Your task to perform on an android device: Toggle the flashlight Image 0: 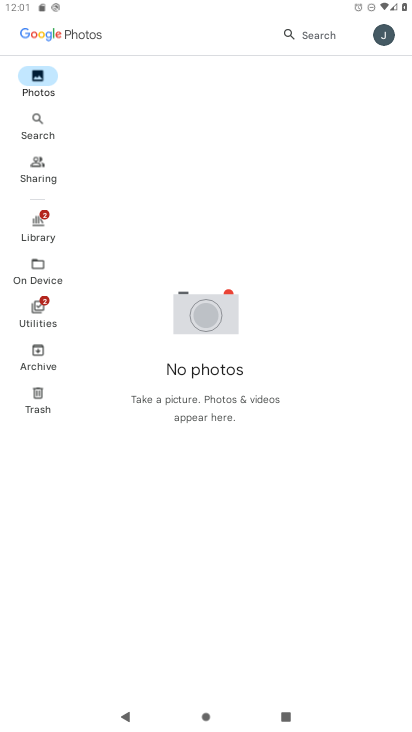
Step 0: press home button
Your task to perform on an android device: Toggle the flashlight Image 1: 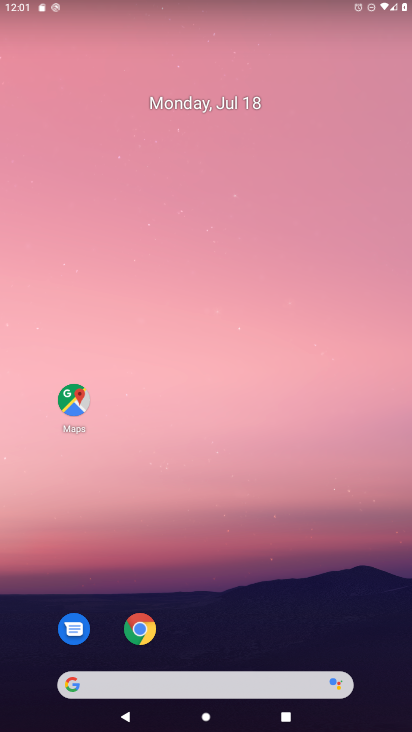
Step 1: drag from (211, 684) to (227, 134)
Your task to perform on an android device: Toggle the flashlight Image 2: 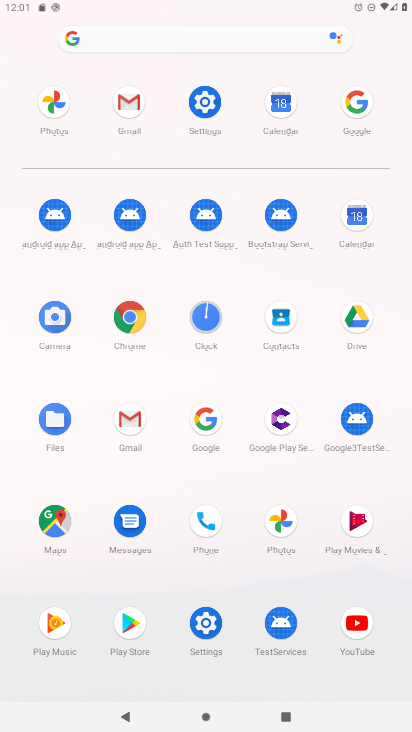
Step 2: click (203, 101)
Your task to perform on an android device: Toggle the flashlight Image 3: 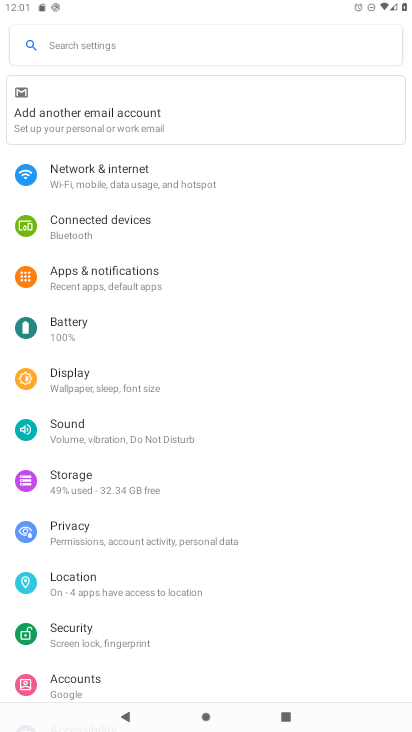
Step 3: drag from (203, 642) to (276, 273)
Your task to perform on an android device: Toggle the flashlight Image 4: 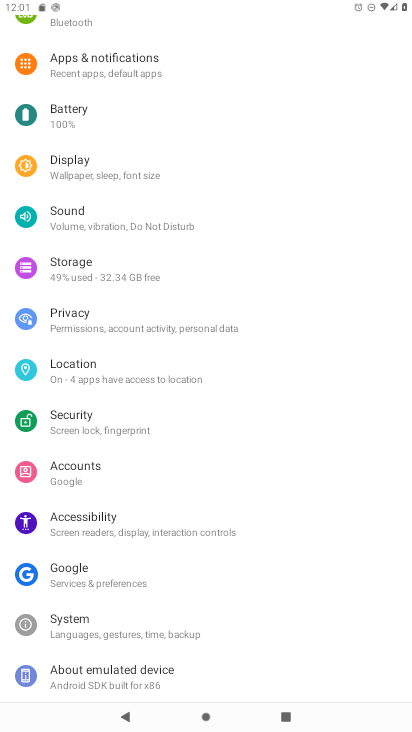
Step 4: click (137, 637)
Your task to perform on an android device: Toggle the flashlight Image 5: 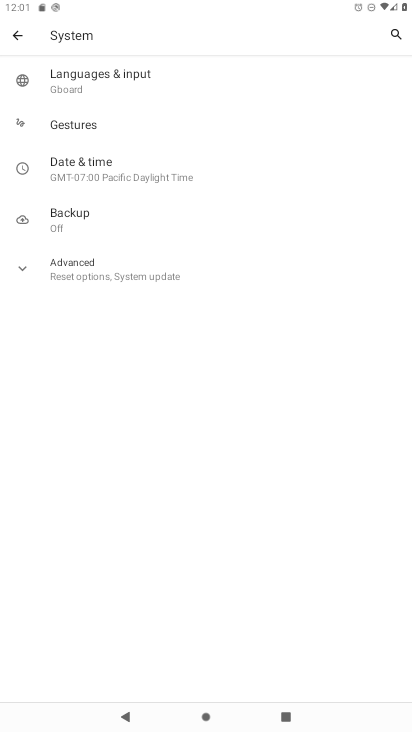
Step 5: click (22, 265)
Your task to perform on an android device: Toggle the flashlight Image 6: 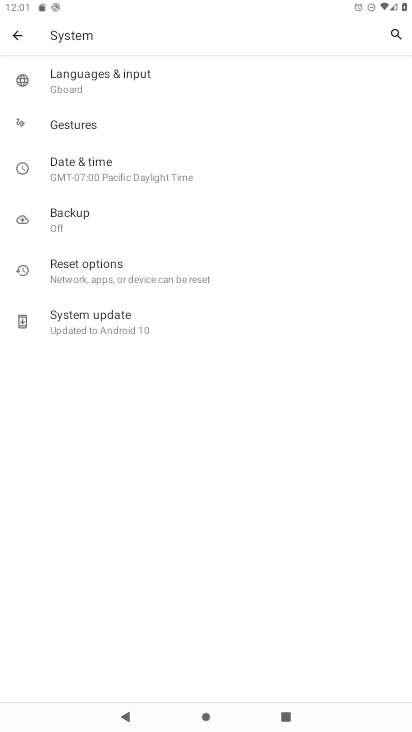
Step 6: press back button
Your task to perform on an android device: Toggle the flashlight Image 7: 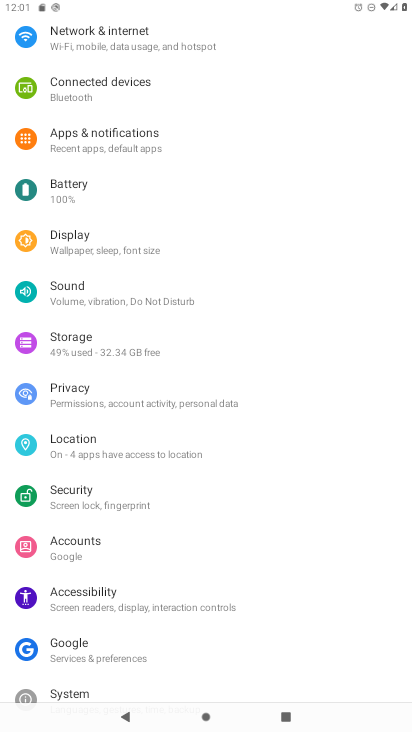
Step 7: click (150, 611)
Your task to perform on an android device: Toggle the flashlight Image 8: 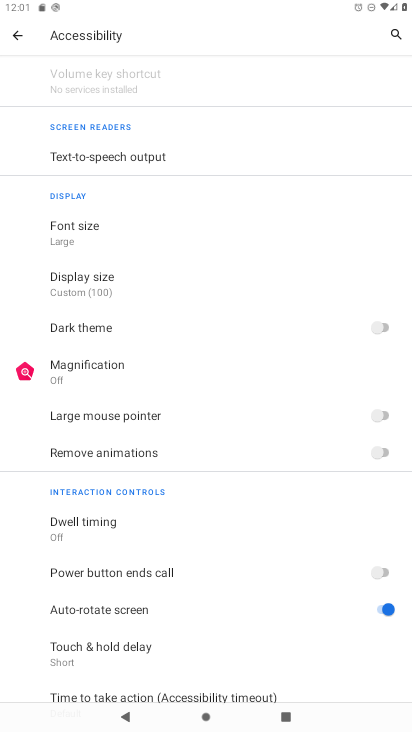
Step 8: drag from (103, 393) to (120, 313)
Your task to perform on an android device: Toggle the flashlight Image 9: 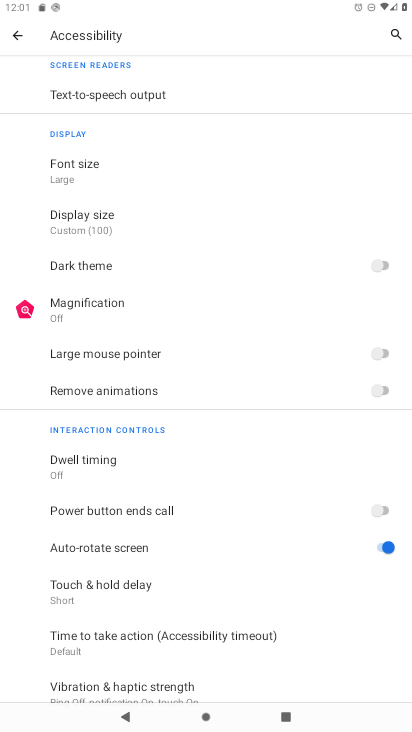
Step 9: drag from (108, 529) to (153, 433)
Your task to perform on an android device: Toggle the flashlight Image 10: 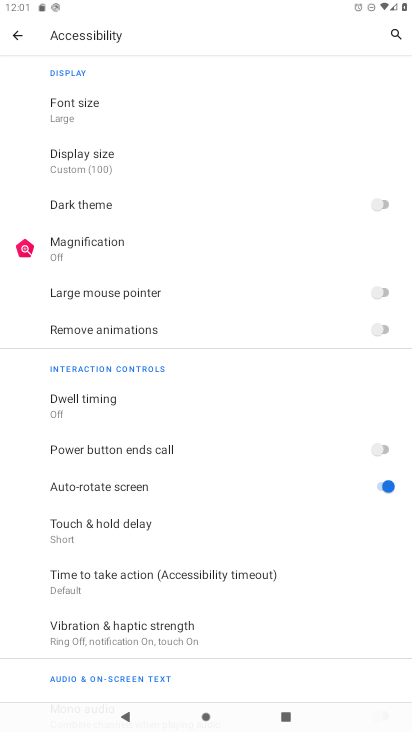
Step 10: drag from (140, 549) to (208, 432)
Your task to perform on an android device: Toggle the flashlight Image 11: 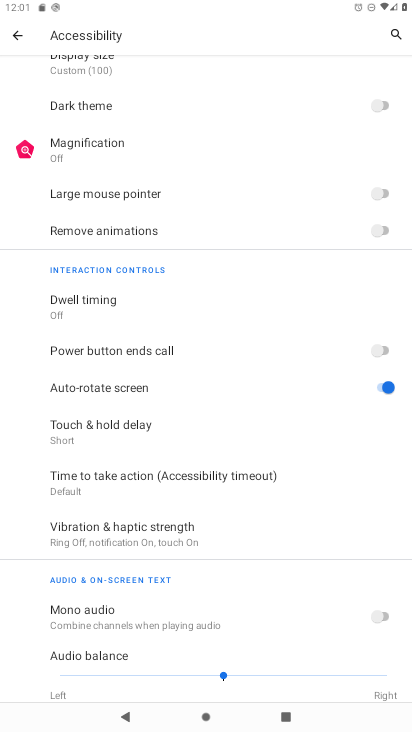
Step 11: drag from (191, 527) to (291, 381)
Your task to perform on an android device: Toggle the flashlight Image 12: 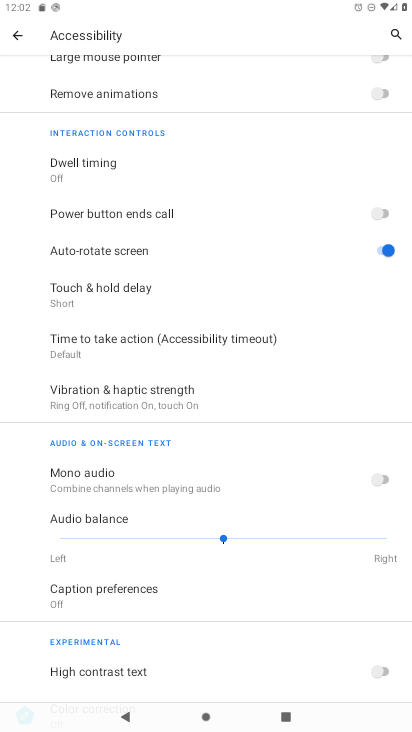
Step 12: drag from (147, 556) to (225, 429)
Your task to perform on an android device: Toggle the flashlight Image 13: 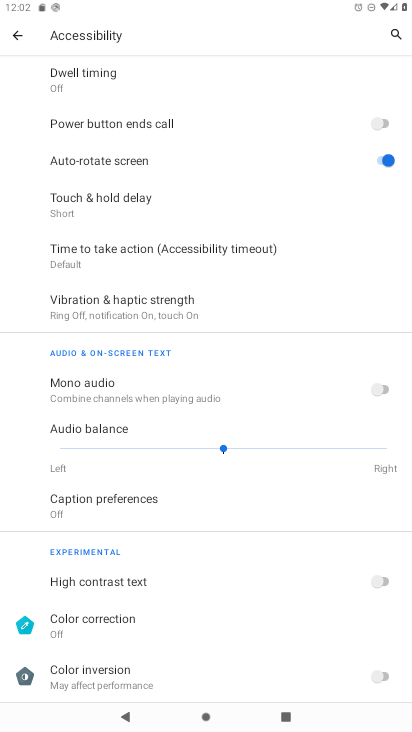
Step 13: drag from (133, 661) to (206, 513)
Your task to perform on an android device: Toggle the flashlight Image 14: 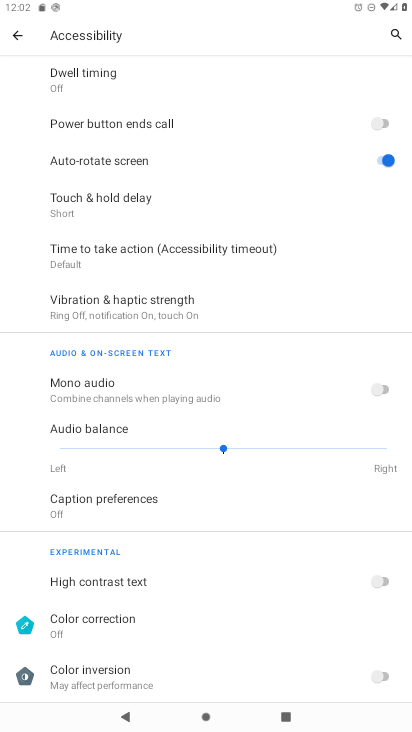
Step 14: press back button
Your task to perform on an android device: Toggle the flashlight Image 15: 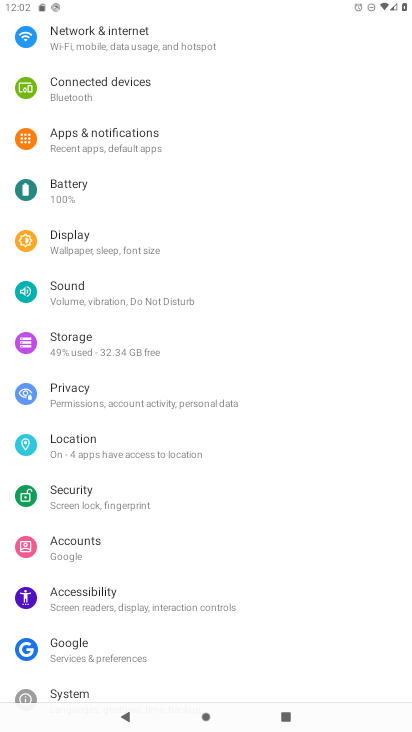
Step 15: click (128, 394)
Your task to perform on an android device: Toggle the flashlight Image 16: 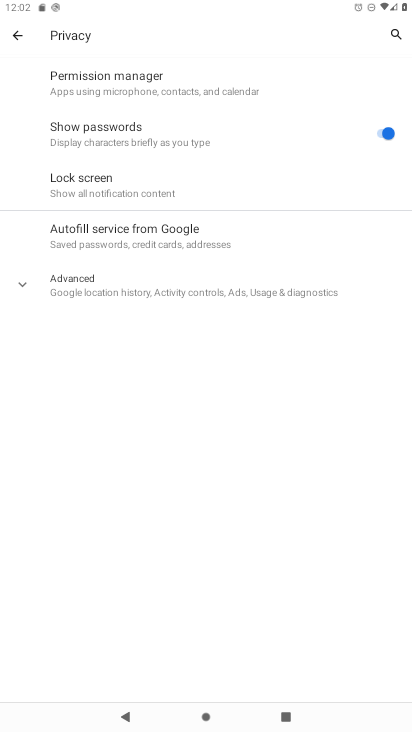
Step 16: click (29, 279)
Your task to perform on an android device: Toggle the flashlight Image 17: 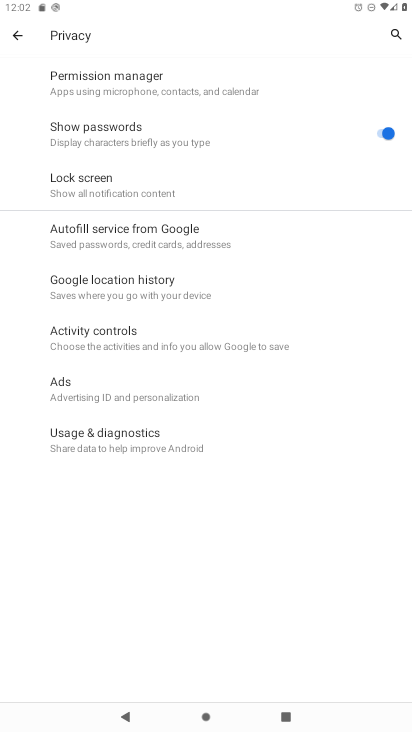
Step 17: press back button
Your task to perform on an android device: Toggle the flashlight Image 18: 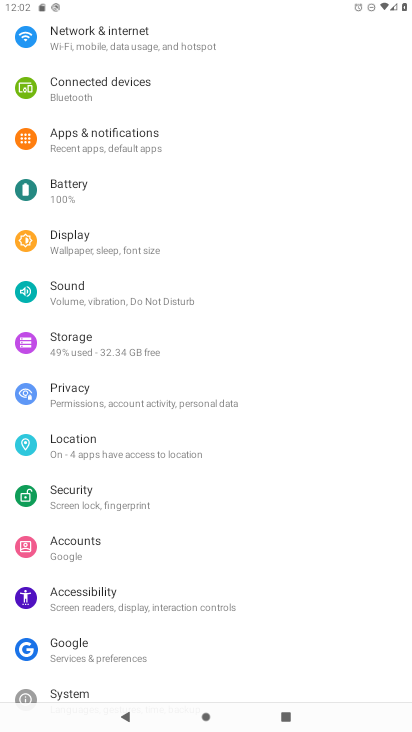
Step 18: click (114, 340)
Your task to perform on an android device: Toggle the flashlight Image 19: 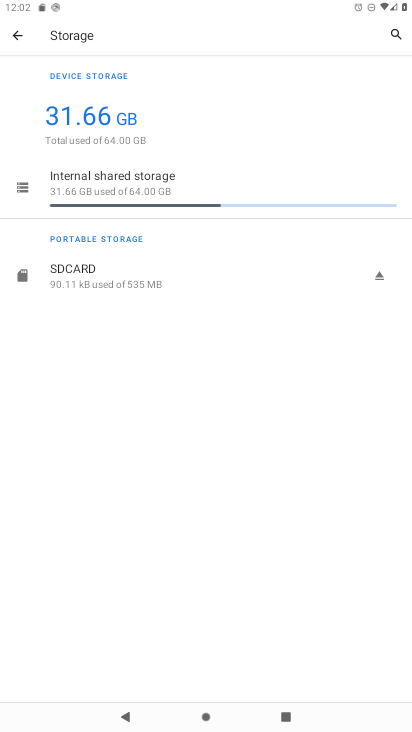
Step 19: press back button
Your task to perform on an android device: Toggle the flashlight Image 20: 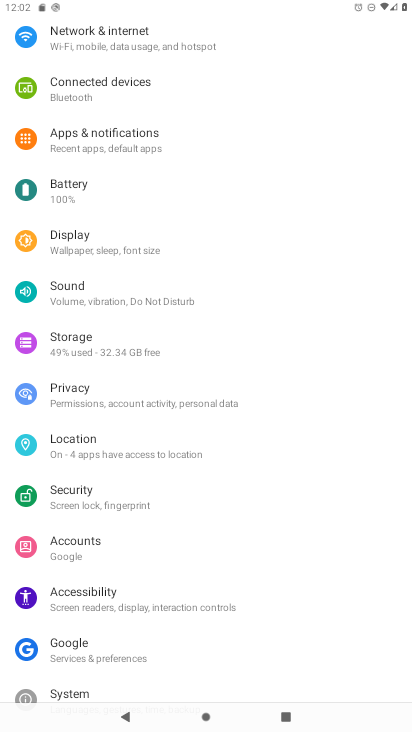
Step 20: click (110, 299)
Your task to perform on an android device: Toggle the flashlight Image 21: 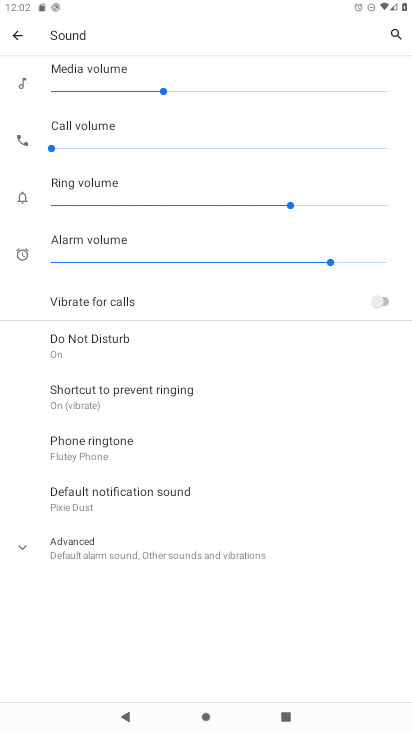
Step 21: click (99, 549)
Your task to perform on an android device: Toggle the flashlight Image 22: 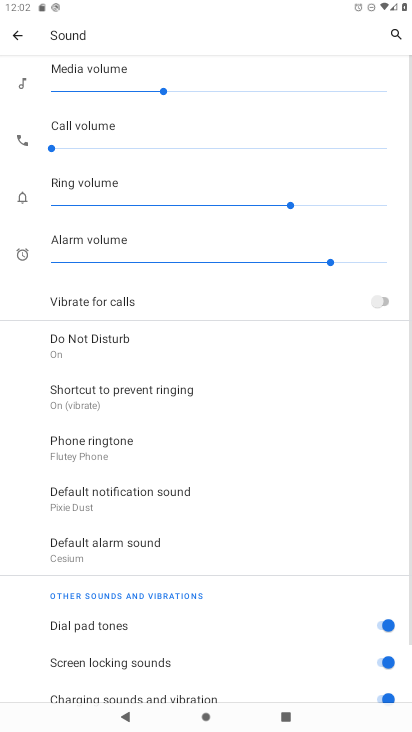
Step 22: drag from (117, 621) to (144, 520)
Your task to perform on an android device: Toggle the flashlight Image 23: 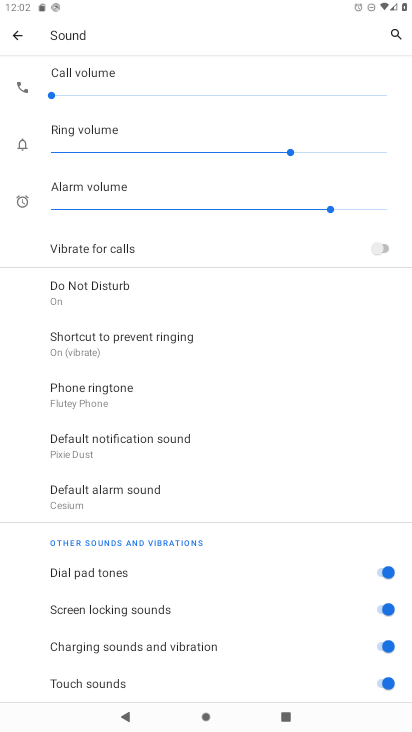
Step 23: drag from (128, 581) to (192, 469)
Your task to perform on an android device: Toggle the flashlight Image 24: 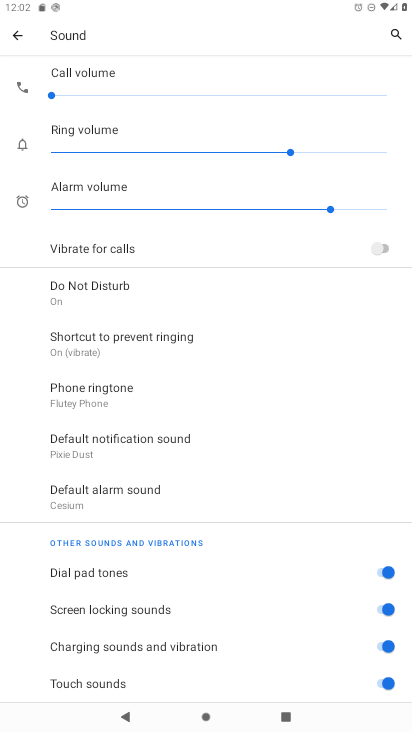
Step 24: drag from (218, 616) to (305, 383)
Your task to perform on an android device: Toggle the flashlight Image 25: 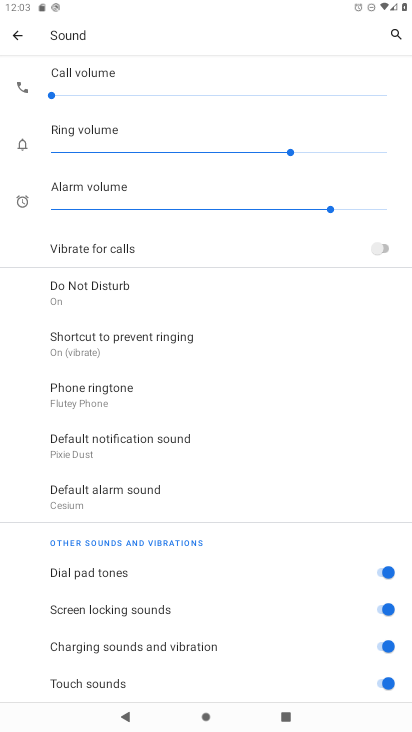
Step 25: drag from (160, 542) to (257, 302)
Your task to perform on an android device: Toggle the flashlight Image 26: 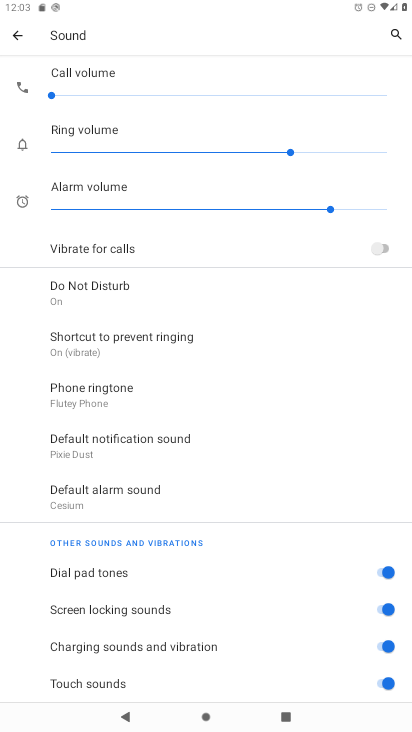
Step 26: drag from (169, 363) to (189, 619)
Your task to perform on an android device: Toggle the flashlight Image 27: 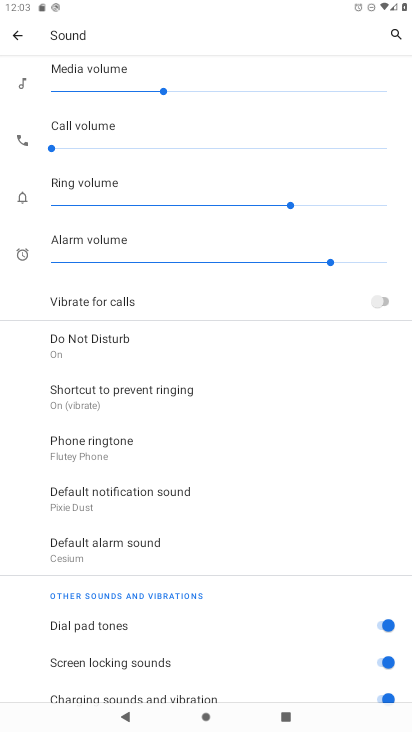
Step 27: drag from (170, 222) to (207, 397)
Your task to perform on an android device: Toggle the flashlight Image 28: 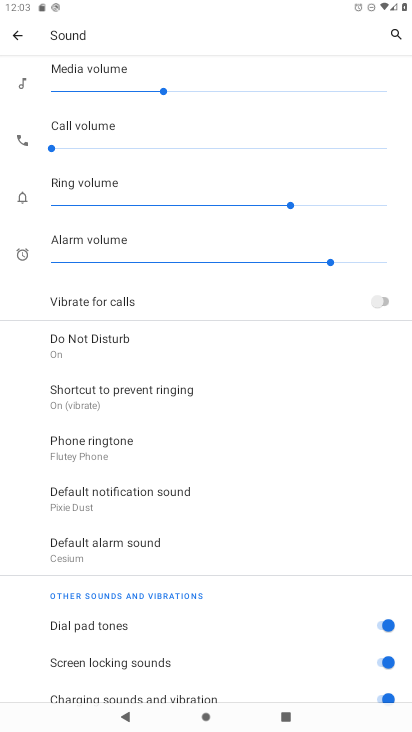
Step 28: press back button
Your task to perform on an android device: Toggle the flashlight Image 29: 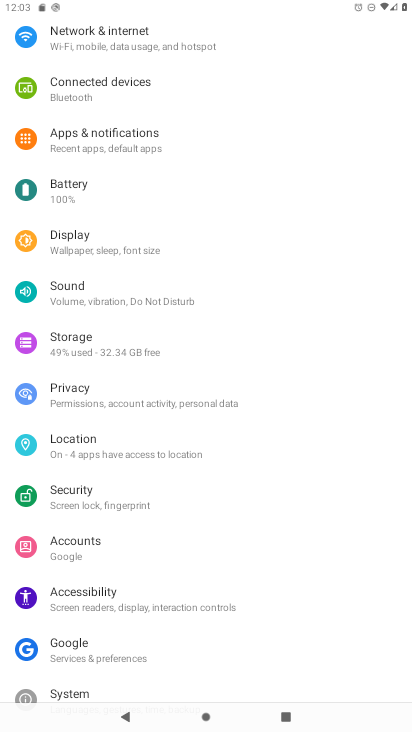
Step 29: click (141, 245)
Your task to perform on an android device: Toggle the flashlight Image 30: 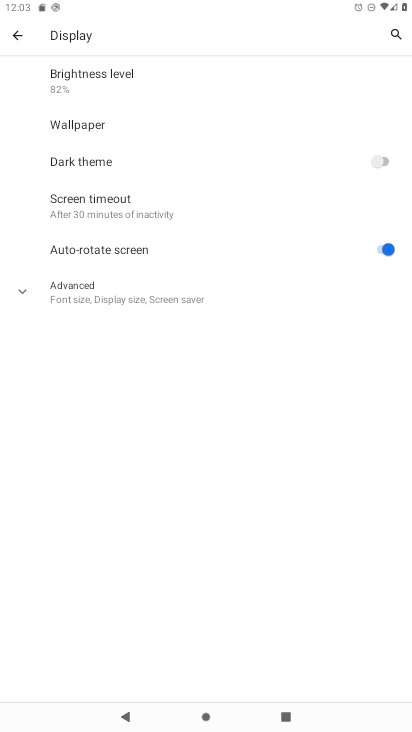
Step 30: click (27, 290)
Your task to perform on an android device: Toggle the flashlight Image 31: 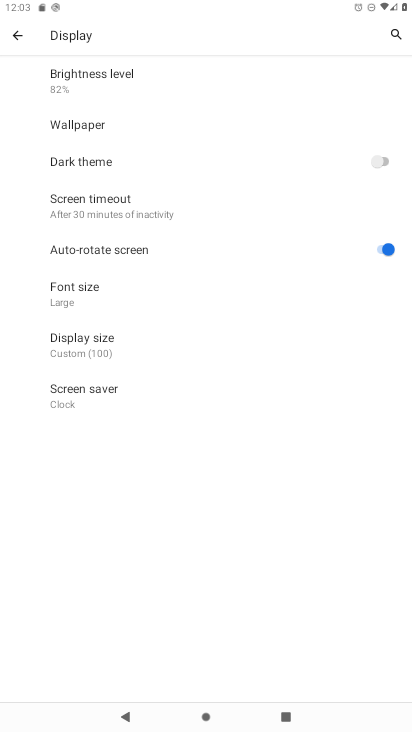
Step 31: task complete